Your task to perform on an android device: Open notification settings Image 0: 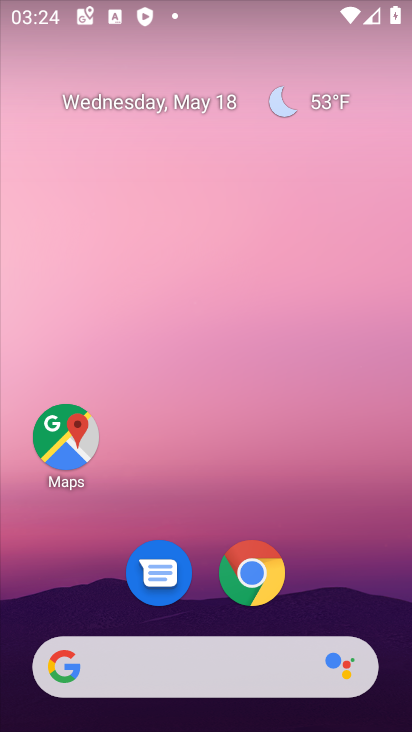
Step 0: drag from (185, 621) to (243, 260)
Your task to perform on an android device: Open notification settings Image 1: 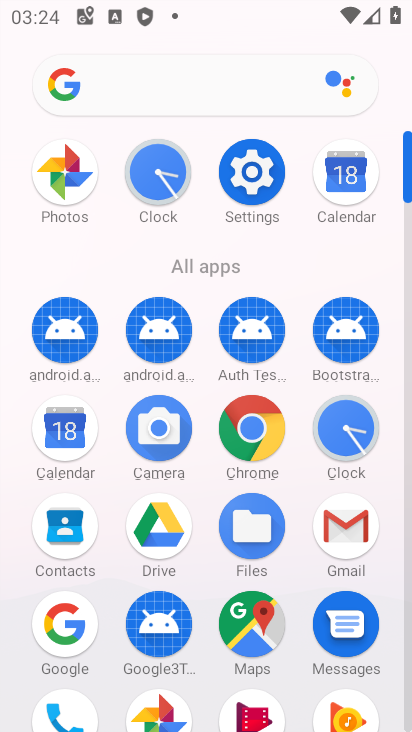
Step 1: click (259, 176)
Your task to perform on an android device: Open notification settings Image 2: 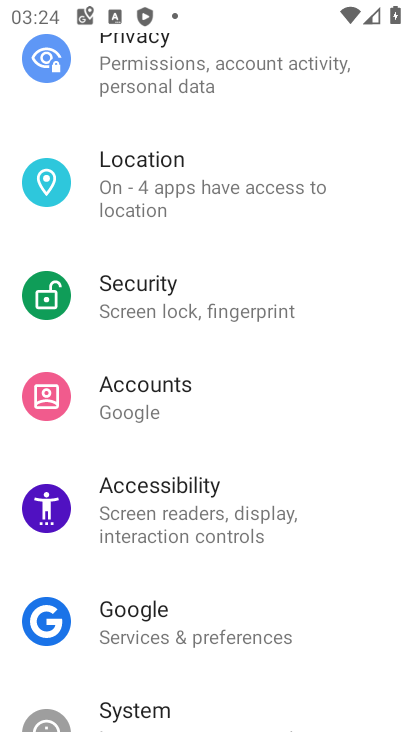
Step 2: drag from (238, 199) to (244, 460)
Your task to perform on an android device: Open notification settings Image 3: 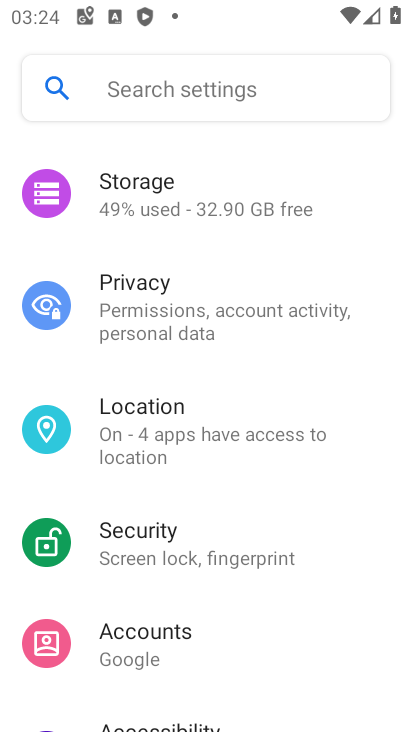
Step 3: drag from (222, 239) to (234, 534)
Your task to perform on an android device: Open notification settings Image 4: 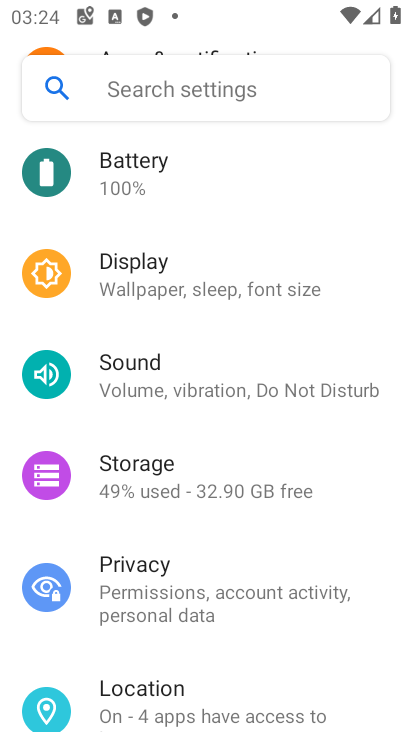
Step 4: drag from (239, 271) to (254, 559)
Your task to perform on an android device: Open notification settings Image 5: 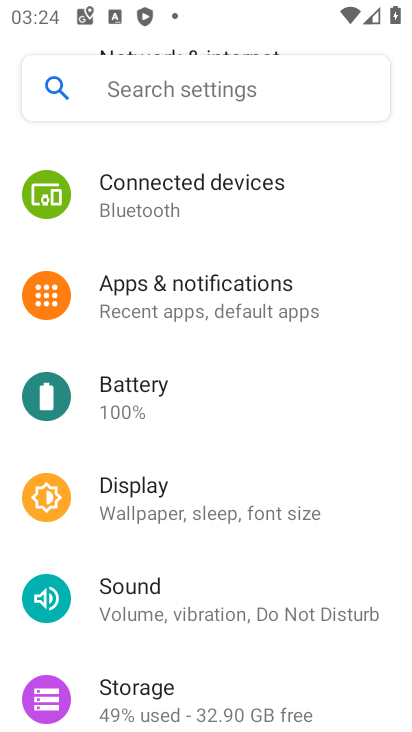
Step 5: drag from (225, 298) to (234, 446)
Your task to perform on an android device: Open notification settings Image 6: 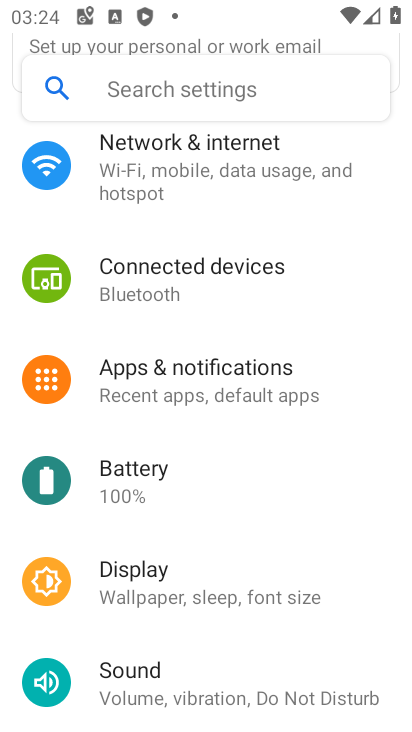
Step 6: click (238, 398)
Your task to perform on an android device: Open notification settings Image 7: 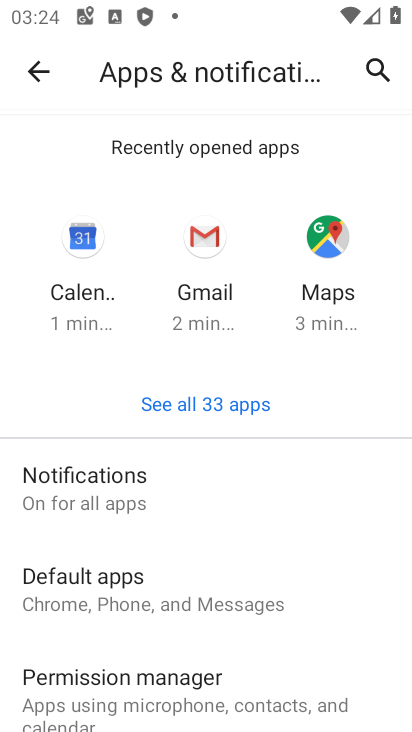
Step 7: click (131, 509)
Your task to perform on an android device: Open notification settings Image 8: 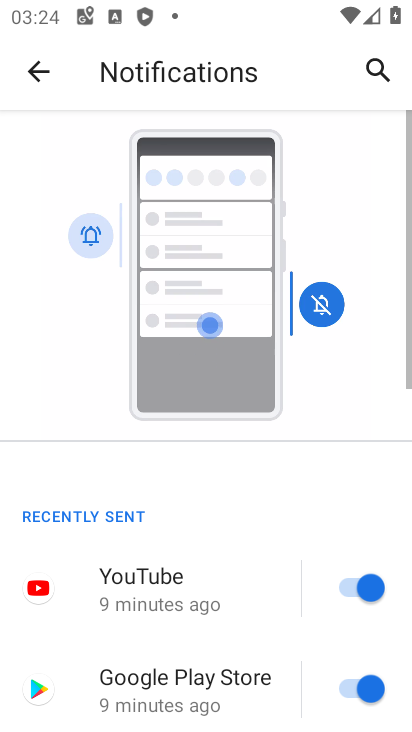
Step 8: task complete